Your task to perform on an android device: See recent photos Image 0: 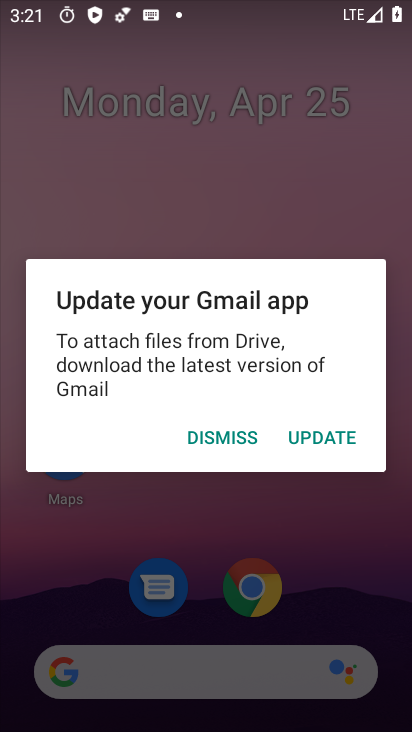
Step 0: press home button
Your task to perform on an android device: See recent photos Image 1: 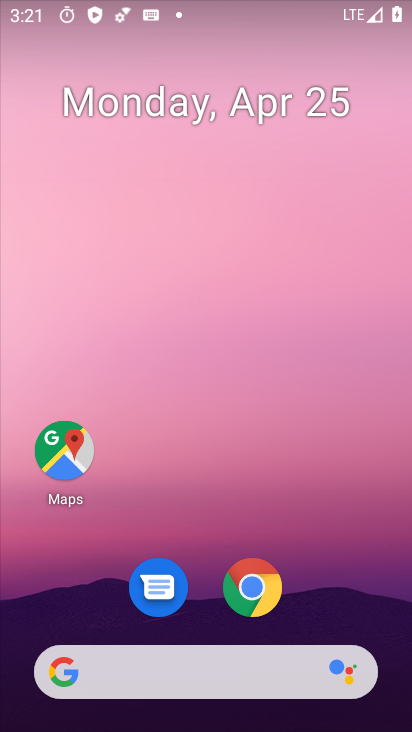
Step 1: drag from (352, 578) to (238, 0)
Your task to perform on an android device: See recent photos Image 2: 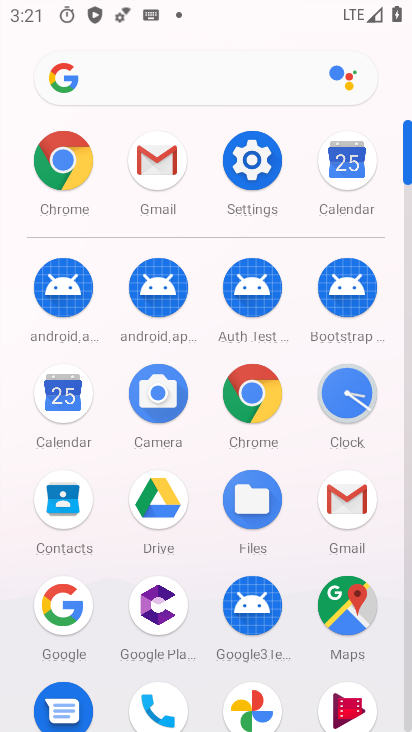
Step 2: click (259, 699)
Your task to perform on an android device: See recent photos Image 3: 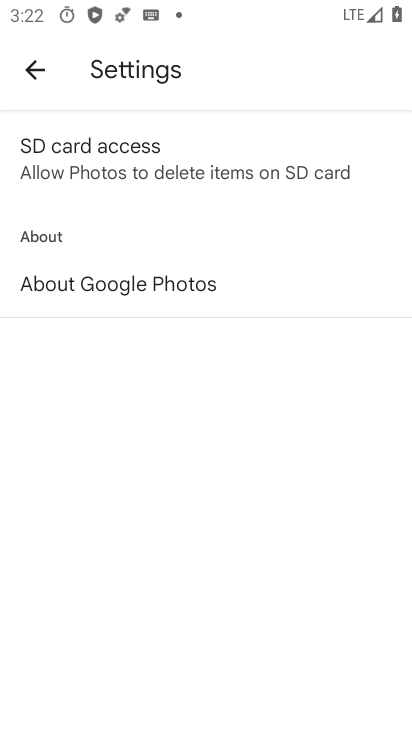
Step 3: click (33, 59)
Your task to perform on an android device: See recent photos Image 4: 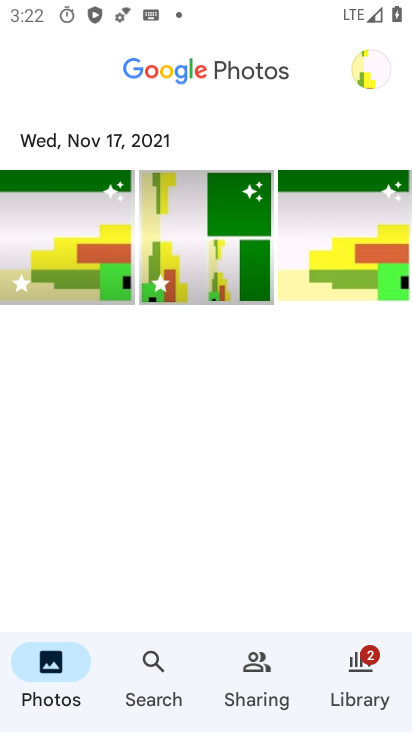
Step 4: click (34, 238)
Your task to perform on an android device: See recent photos Image 5: 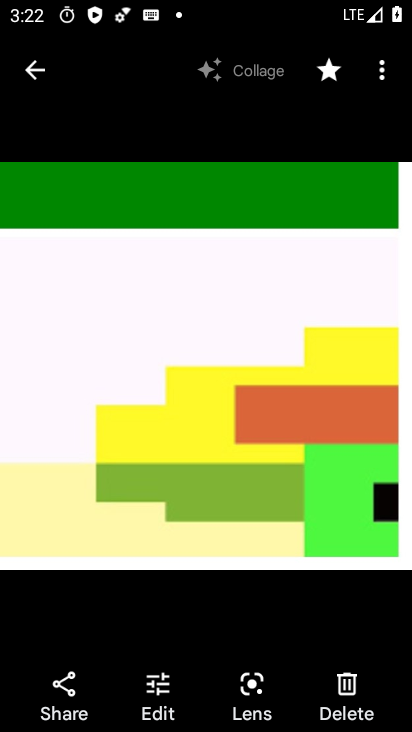
Step 5: task complete